Your task to perform on an android device: What's the weather going to be tomorrow? Image 0: 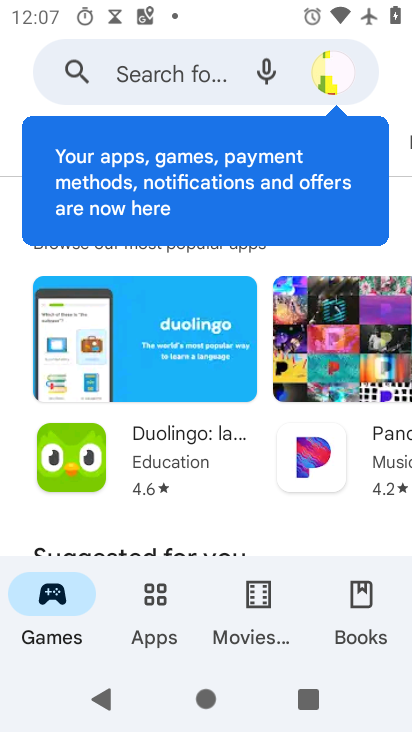
Step 0: press back button
Your task to perform on an android device: What's the weather going to be tomorrow? Image 1: 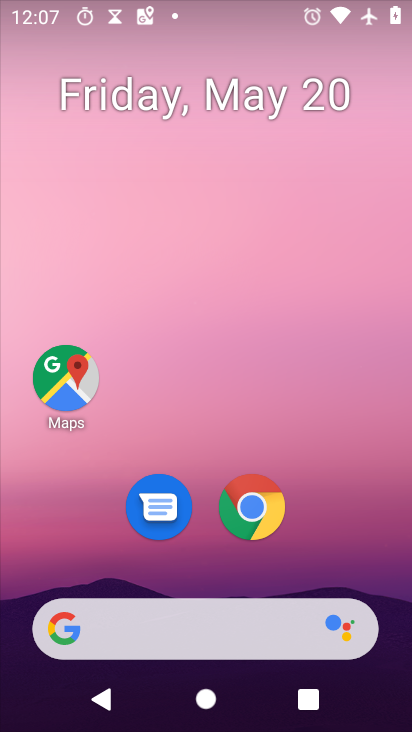
Step 1: drag from (333, 506) to (286, 34)
Your task to perform on an android device: What's the weather going to be tomorrow? Image 2: 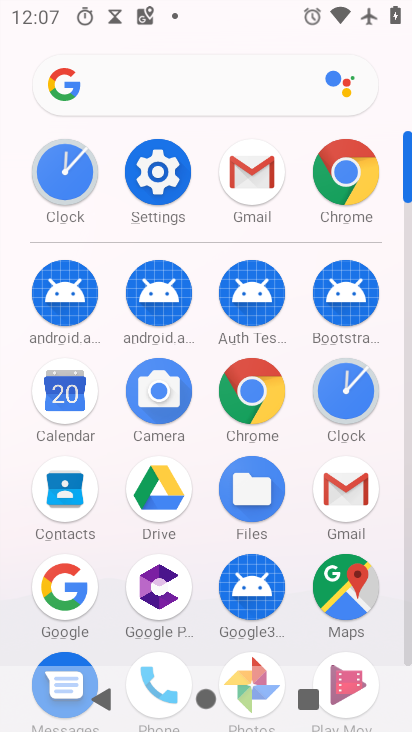
Step 2: drag from (0, 379) to (20, 223)
Your task to perform on an android device: What's the weather going to be tomorrow? Image 3: 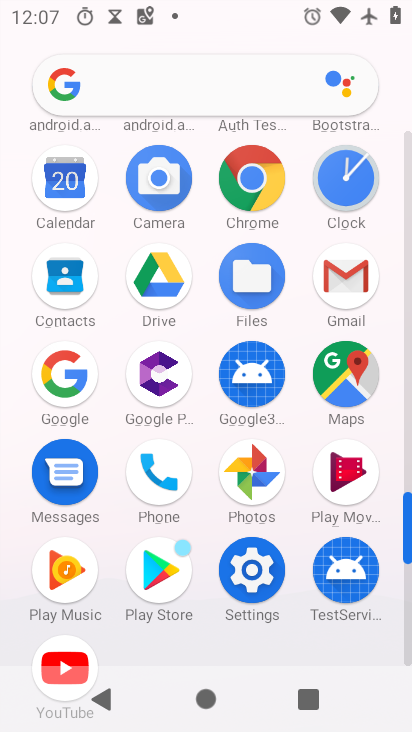
Step 3: drag from (15, 572) to (33, 236)
Your task to perform on an android device: What's the weather going to be tomorrow? Image 4: 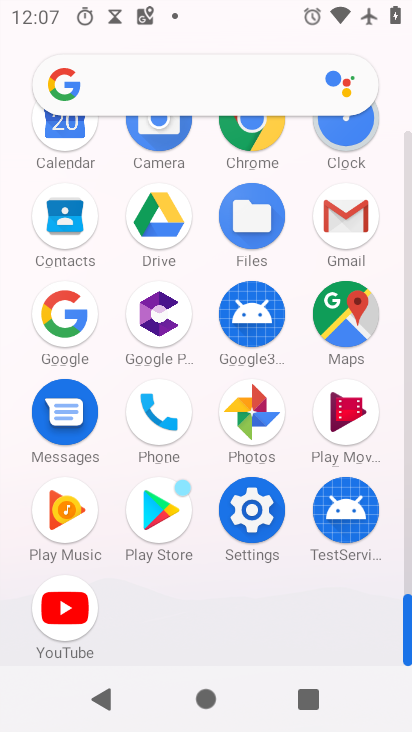
Step 4: drag from (7, 170) to (12, 434)
Your task to perform on an android device: What's the weather going to be tomorrow? Image 5: 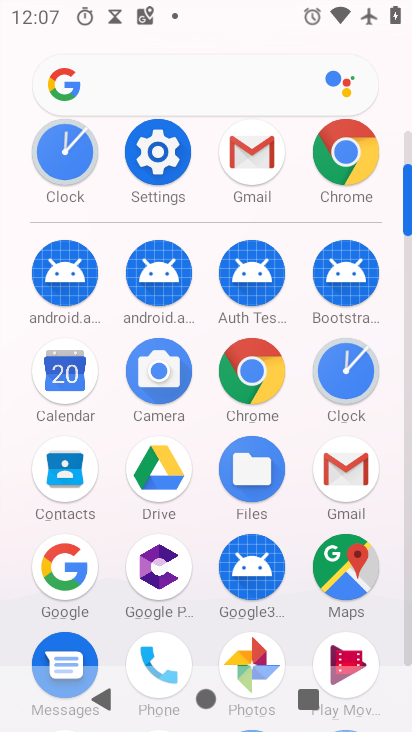
Step 5: click (253, 367)
Your task to perform on an android device: What's the weather going to be tomorrow? Image 6: 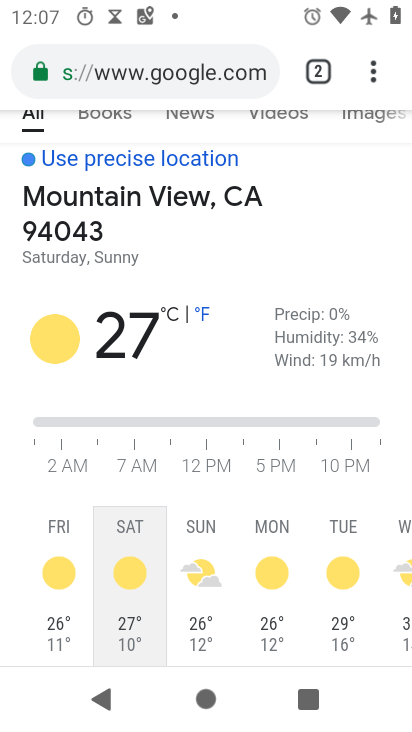
Step 6: click (180, 67)
Your task to perform on an android device: What's the weather going to be tomorrow? Image 7: 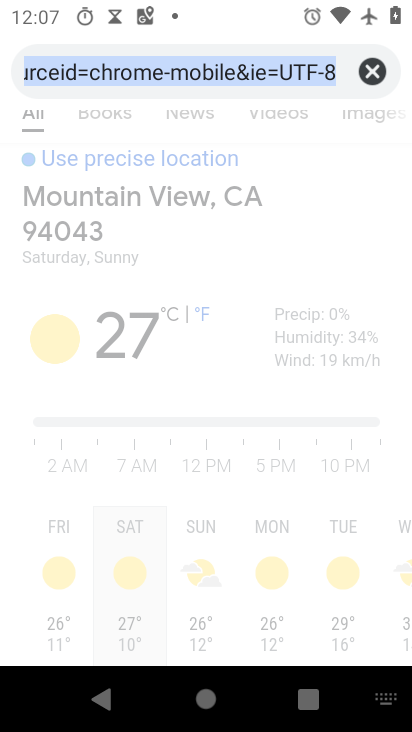
Step 7: click (372, 77)
Your task to perform on an android device: What's the weather going to be tomorrow? Image 8: 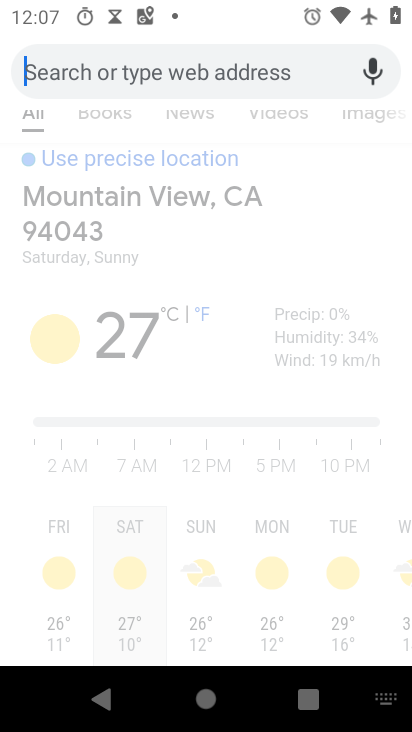
Step 8: type "What's the weather going to be tomorrow?"
Your task to perform on an android device: What's the weather going to be tomorrow? Image 9: 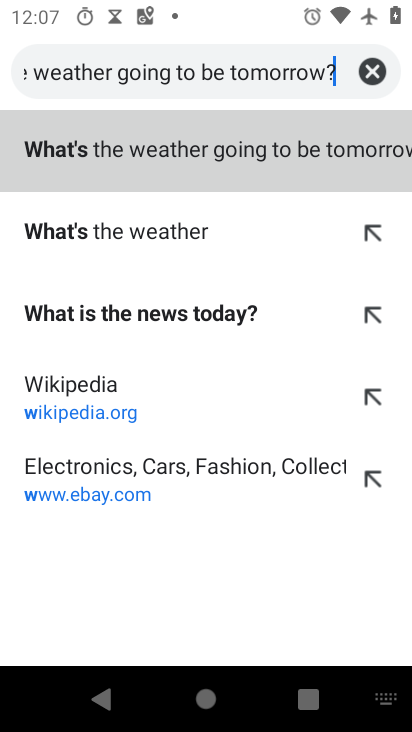
Step 9: type ""
Your task to perform on an android device: What's the weather going to be tomorrow? Image 10: 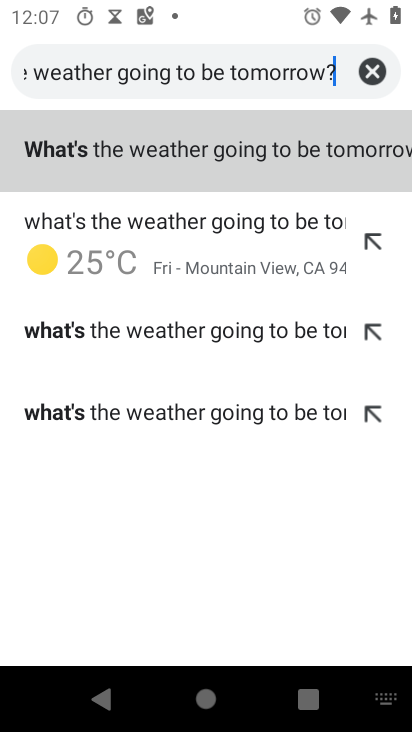
Step 10: click (137, 151)
Your task to perform on an android device: What's the weather going to be tomorrow? Image 11: 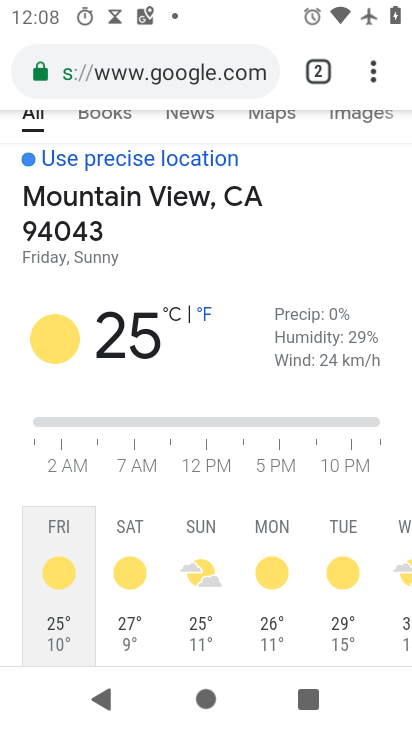
Step 11: task complete